Your task to perform on an android device: Open Google Chrome Image 0: 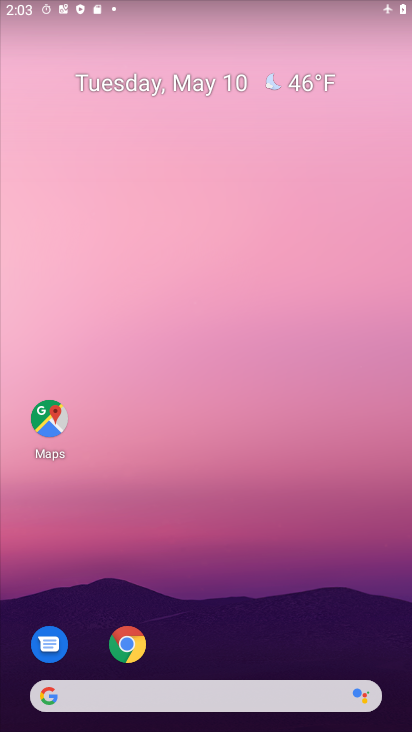
Step 0: drag from (259, 665) to (274, 161)
Your task to perform on an android device: Open Google Chrome Image 1: 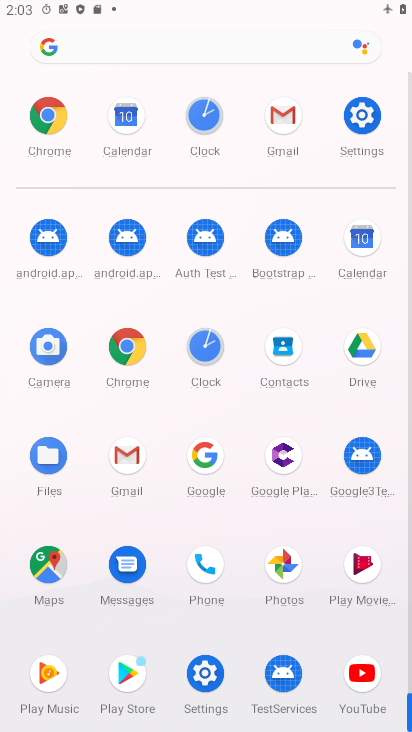
Step 1: click (122, 357)
Your task to perform on an android device: Open Google Chrome Image 2: 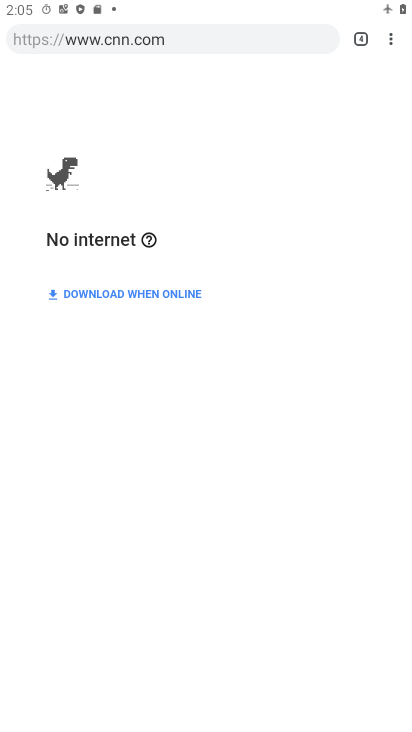
Step 2: task complete